Your task to perform on an android device: Open Google Chrome Image 0: 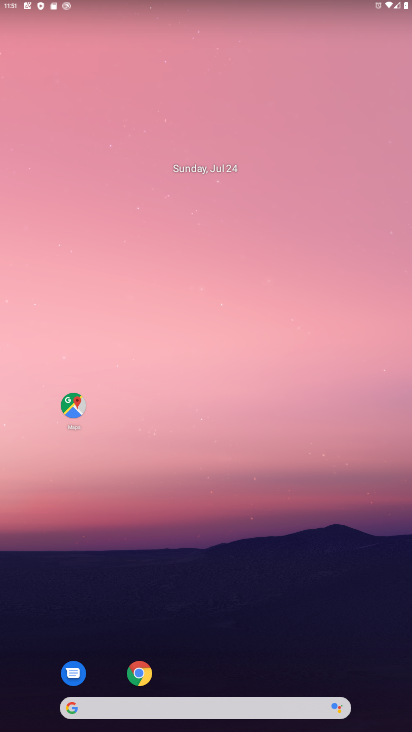
Step 0: drag from (329, 635) to (280, 153)
Your task to perform on an android device: Open Google Chrome Image 1: 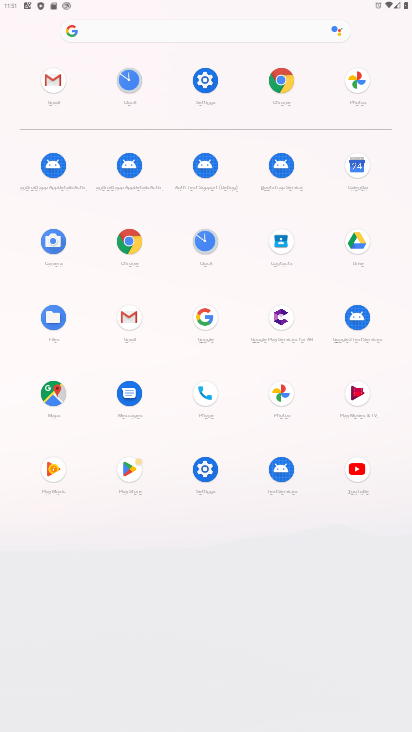
Step 1: click (282, 79)
Your task to perform on an android device: Open Google Chrome Image 2: 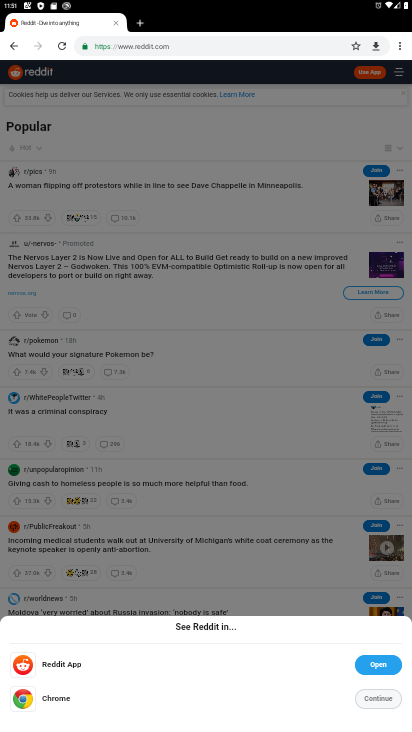
Step 2: task complete